Your task to perform on an android device: open a bookmark in the chrome app Image 0: 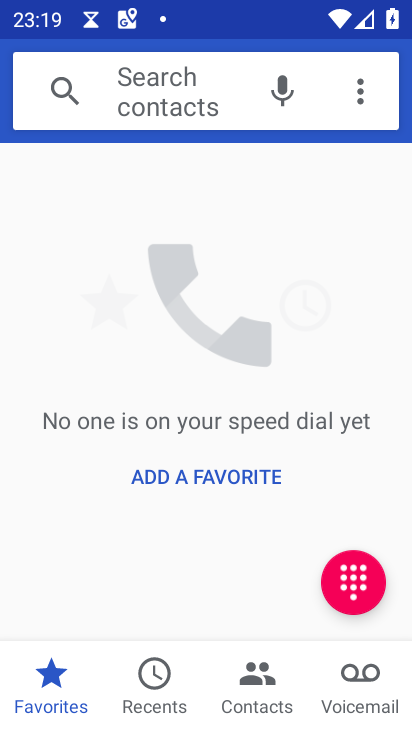
Step 0: press home button
Your task to perform on an android device: open a bookmark in the chrome app Image 1: 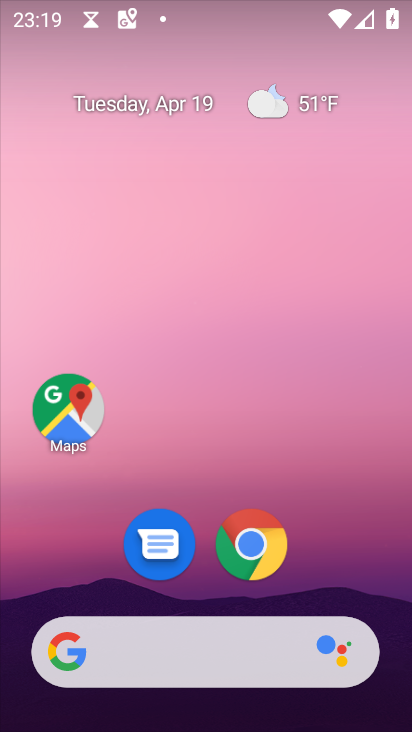
Step 1: click (257, 547)
Your task to perform on an android device: open a bookmark in the chrome app Image 2: 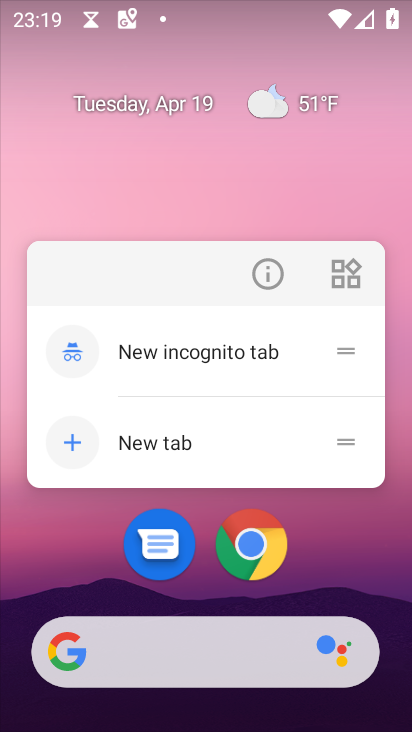
Step 2: click (257, 547)
Your task to perform on an android device: open a bookmark in the chrome app Image 3: 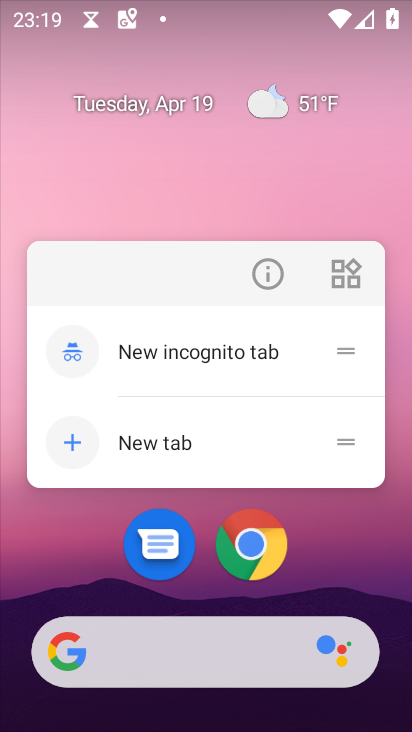
Step 3: click (257, 547)
Your task to perform on an android device: open a bookmark in the chrome app Image 4: 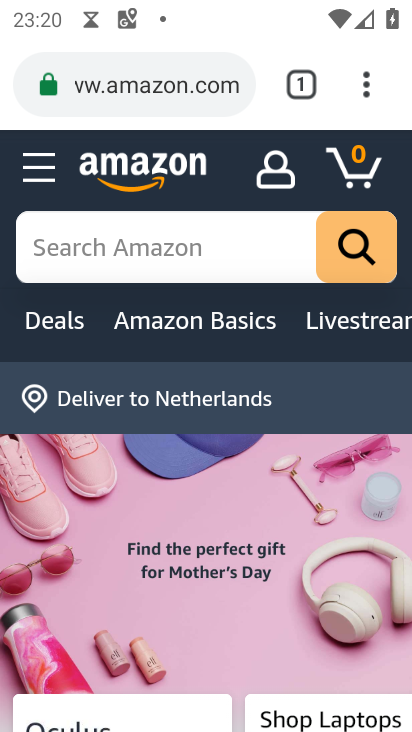
Step 4: click (362, 88)
Your task to perform on an android device: open a bookmark in the chrome app Image 5: 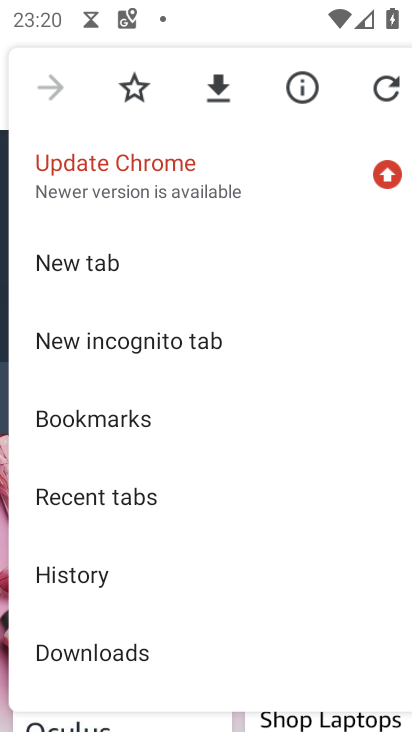
Step 5: click (80, 423)
Your task to perform on an android device: open a bookmark in the chrome app Image 6: 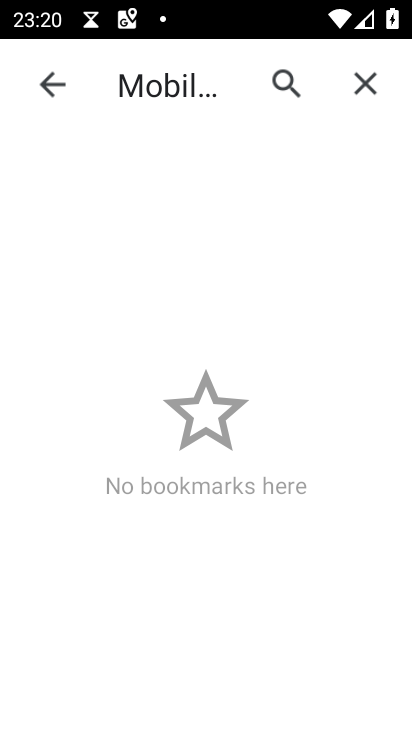
Step 6: task complete